Your task to perform on an android device: find which apps use the phone's location Image 0: 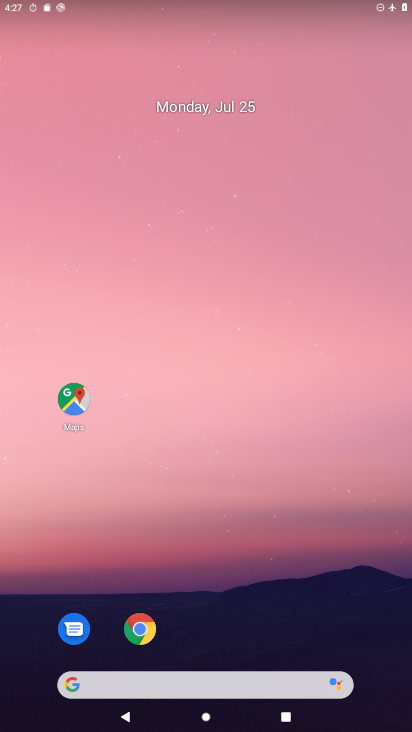
Step 0: drag from (258, 562) to (241, 67)
Your task to perform on an android device: find which apps use the phone's location Image 1: 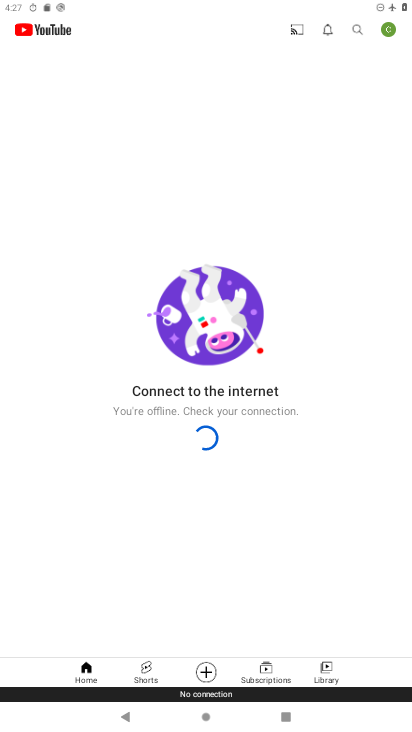
Step 1: press home button
Your task to perform on an android device: find which apps use the phone's location Image 2: 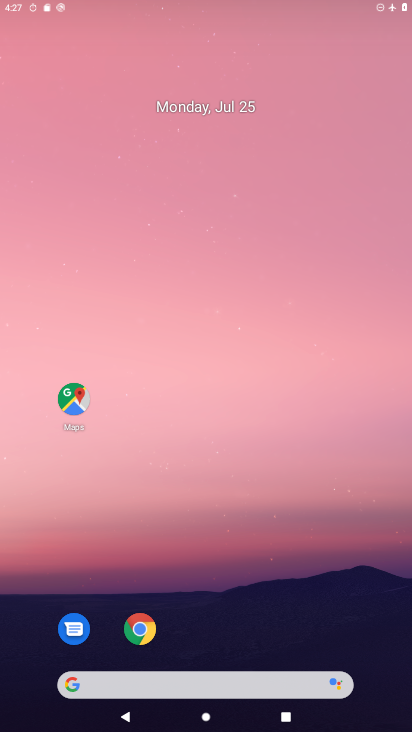
Step 2: drag from (234, 531) to (314, 102)
Your task to perform on an android device: find which apps use the phone's location Image 3: 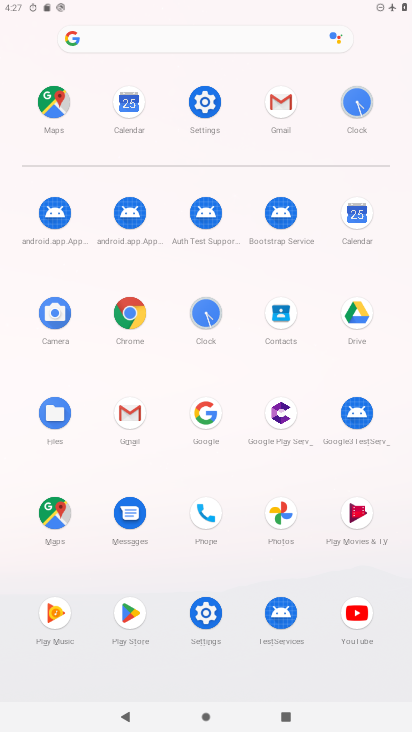
Step 3: click (211, 508)
Your task to perform on an android device: find which apps use the phone's location Image 4: 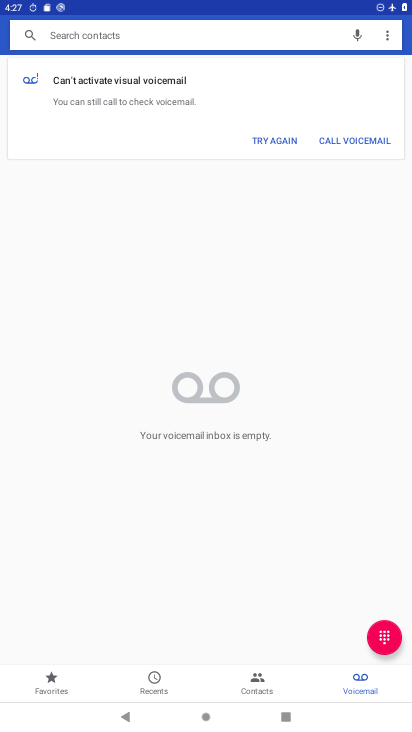
Step 4: press home button
Your task to perform on an android device: find which apps use the phone's location Image 5: 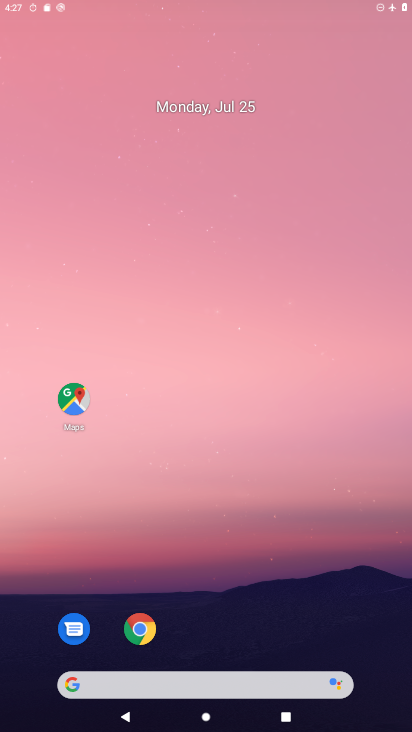
Step 5: drag from (265, 687) to (352, 63)
Your task to perform on an android device: find which apps use the phone's location Image 6: 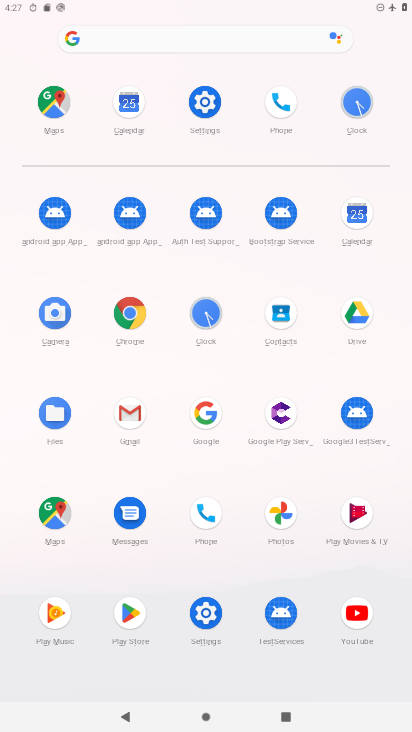
Step 6: click (205, 112)
Your task to perform on an android device: find which apps use the phone's location Image 7: 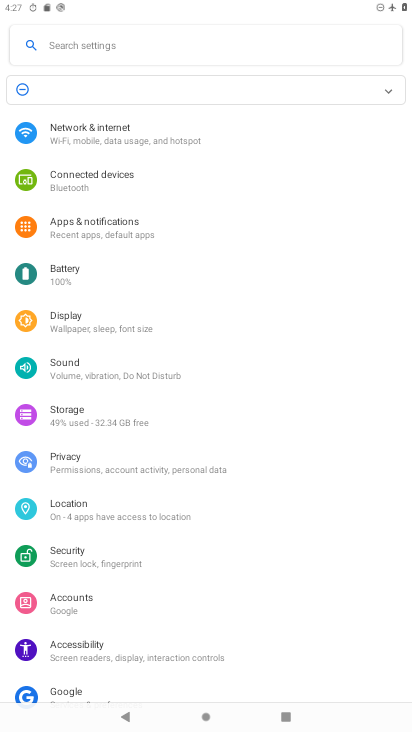
Step 7: click (96, 511)
Your task to perform on an android device: find which apps use the phone's location Image 8: 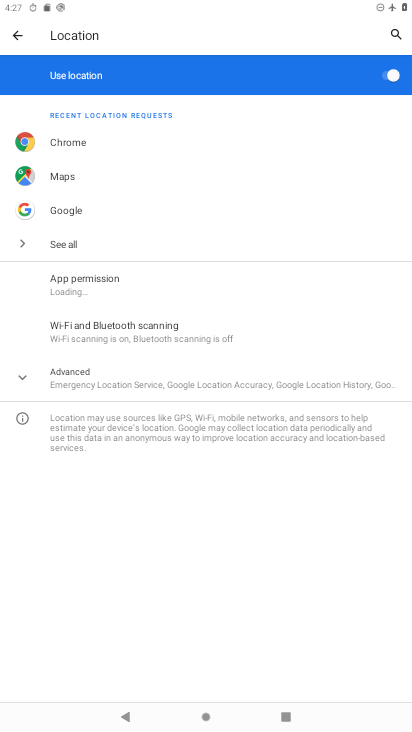
Step 8: click (233, 376)
Your task to perform on an android device: find which apps use the phone's location Image 9: 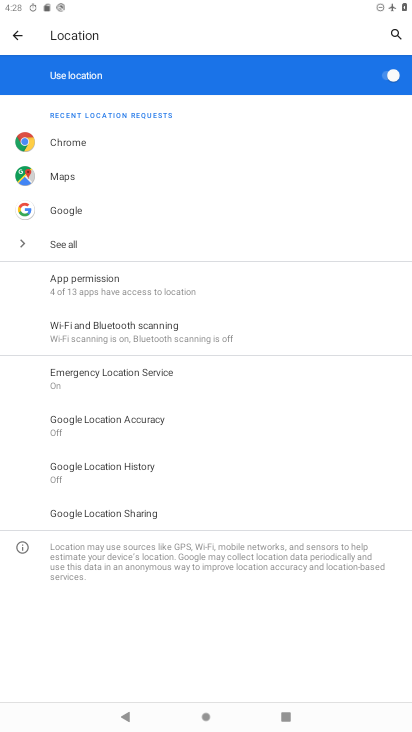
Step 9: click (190, 285)
Your task to perform on an android device: find which apps use the phone's location Image 10: 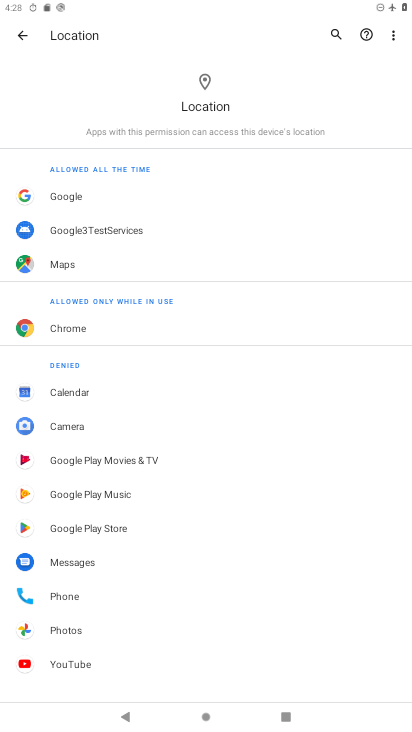
Step 10: task complete